Your task to perform on an android device: delete a single message in the gmail app Image 0: 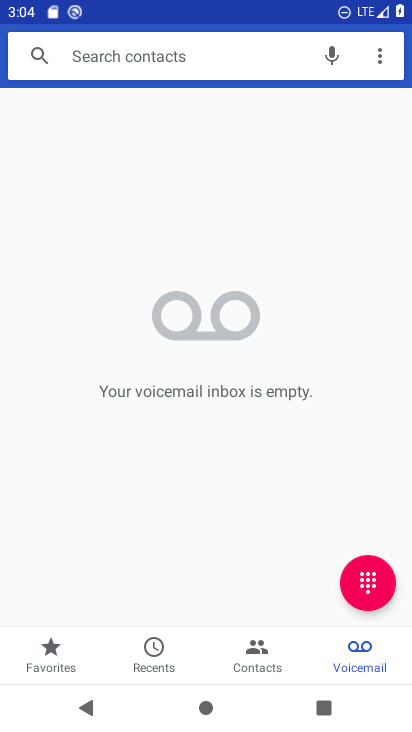
Step 0: press home button
Your task to perform on an android device: delete a single message in the gmail app Image 1: 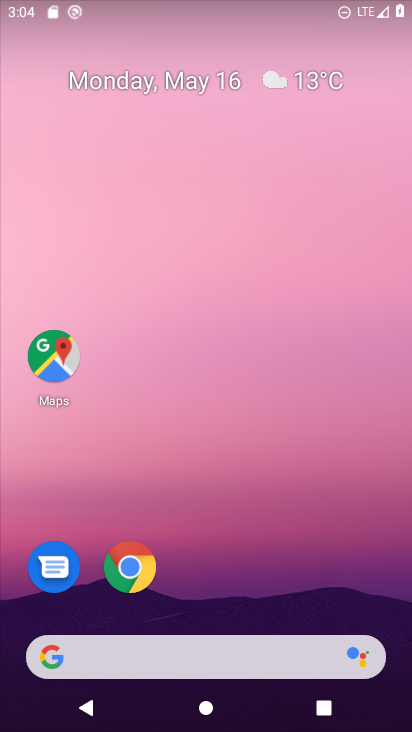
Step 1: drag from (200, 537) to (186, 17)
Your task to perform on an android device: delete a single message in the gmail app Image 2: 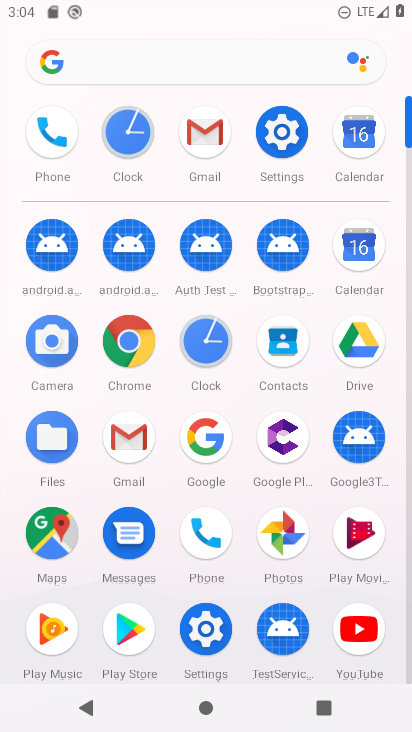
Step 2: click (136, 438)
Your task to perform on an android device: delete a single message in the gmail app Image 3: 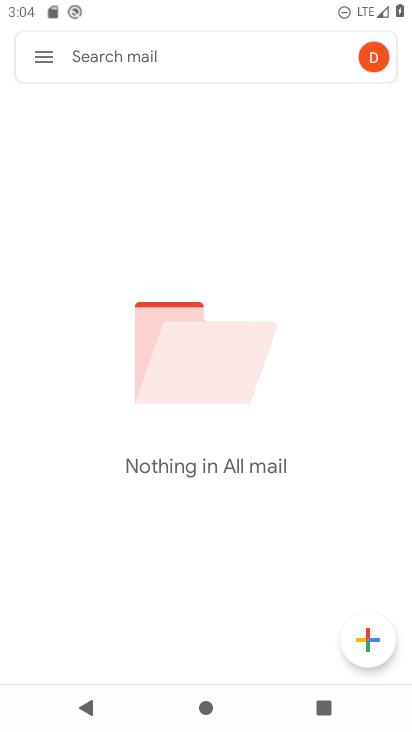
Step 3: task complete